Your task to perform on an android device: Turn on the flashlight Image 0: 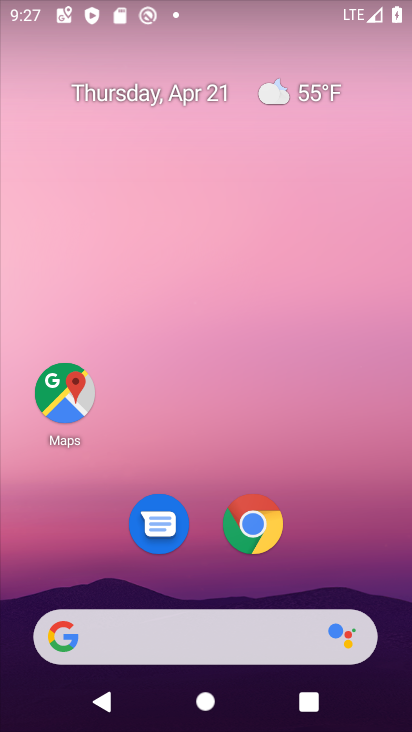
Step 0: drag from (373, 521) to (367, 114)
Your task to perform on an android device: Turn on the flashlight Image 1: 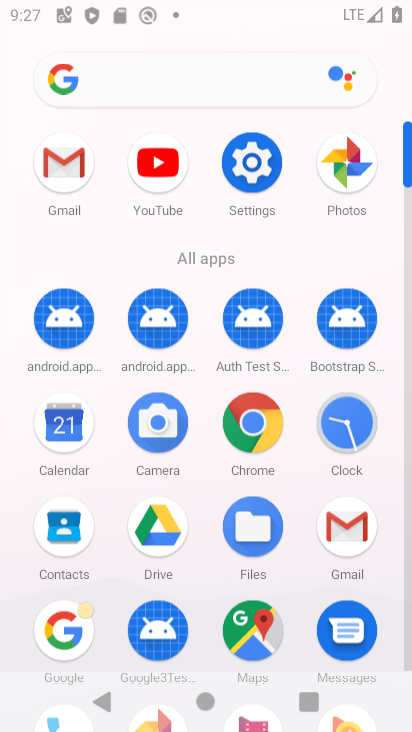
Step 1: drag from (347, 252) to (334, 128)
Your task to perform on an android device: Turn on the flashlight Image 2: 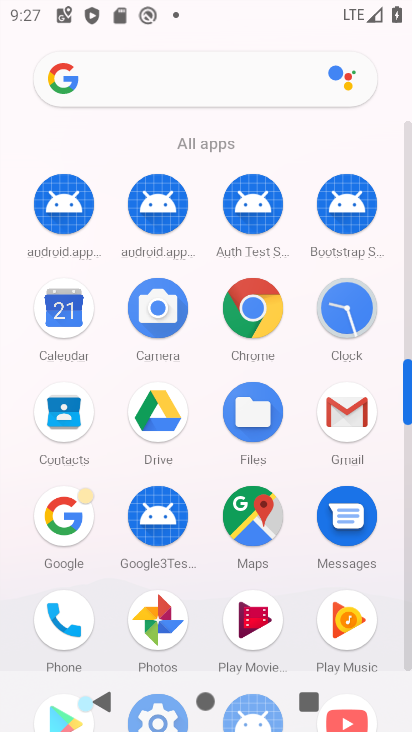
Step 2: drag from (299, 165) to (307, 520)
Your task to perform on an android device: Turn on the flashlight Image 3: 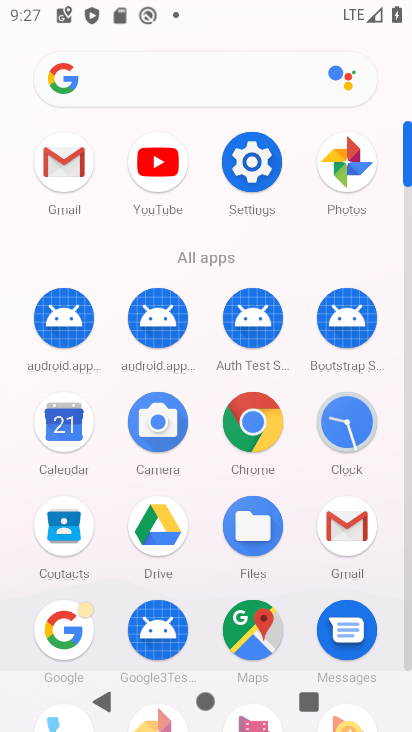
Step 3: click (261, 161)
Your task to perform on an android device: Turn on the flashlight Image 4: 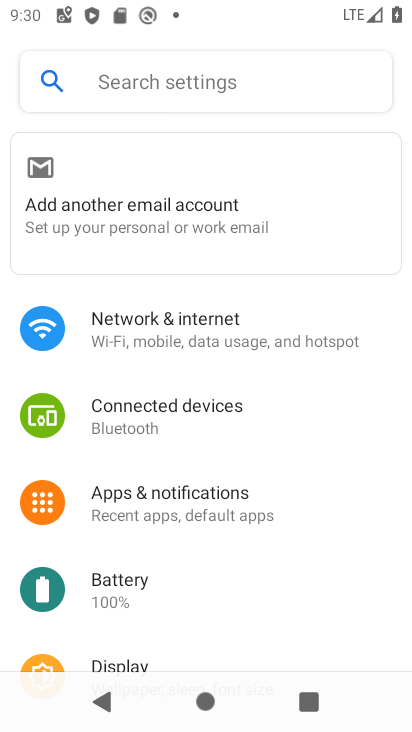
Step 4: click (283, 75)
Your task to perform on an android device: Turn on the flashlight Image 5: 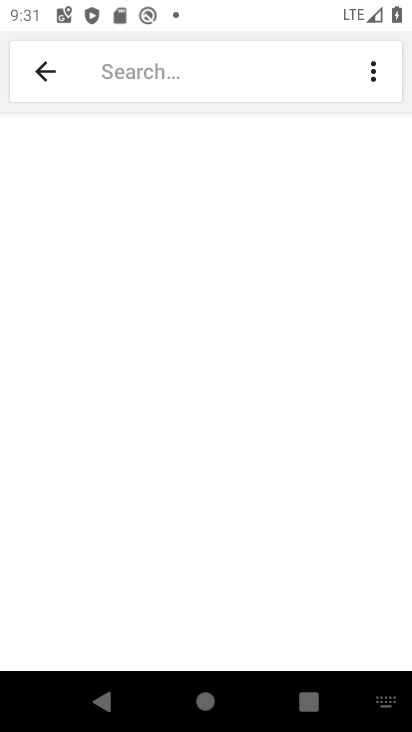
Step 5: type "Flashlight"
Your task to perform on an android device: Turn on the flashlight Image 6: 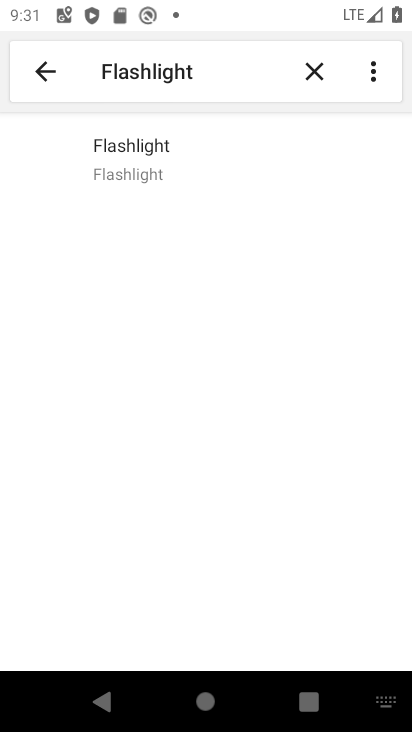
Step 6: click (134, 153)
Your task to perform on an android device: Turn on the flashlight Image 7: 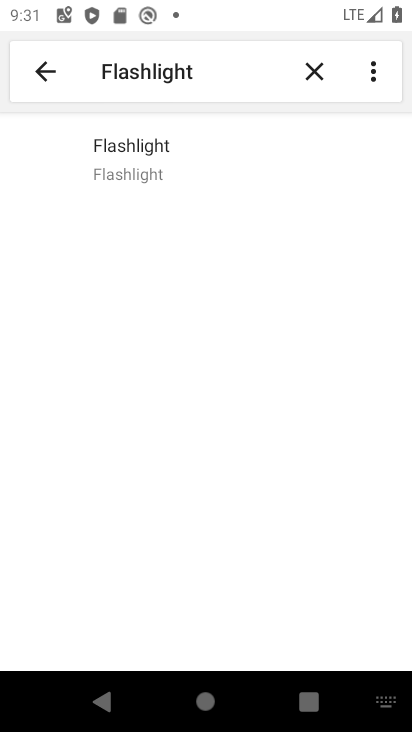
Step 7: task complete